Your task to perform on an android device: toggle priority inbox in the gmail app Image 0: 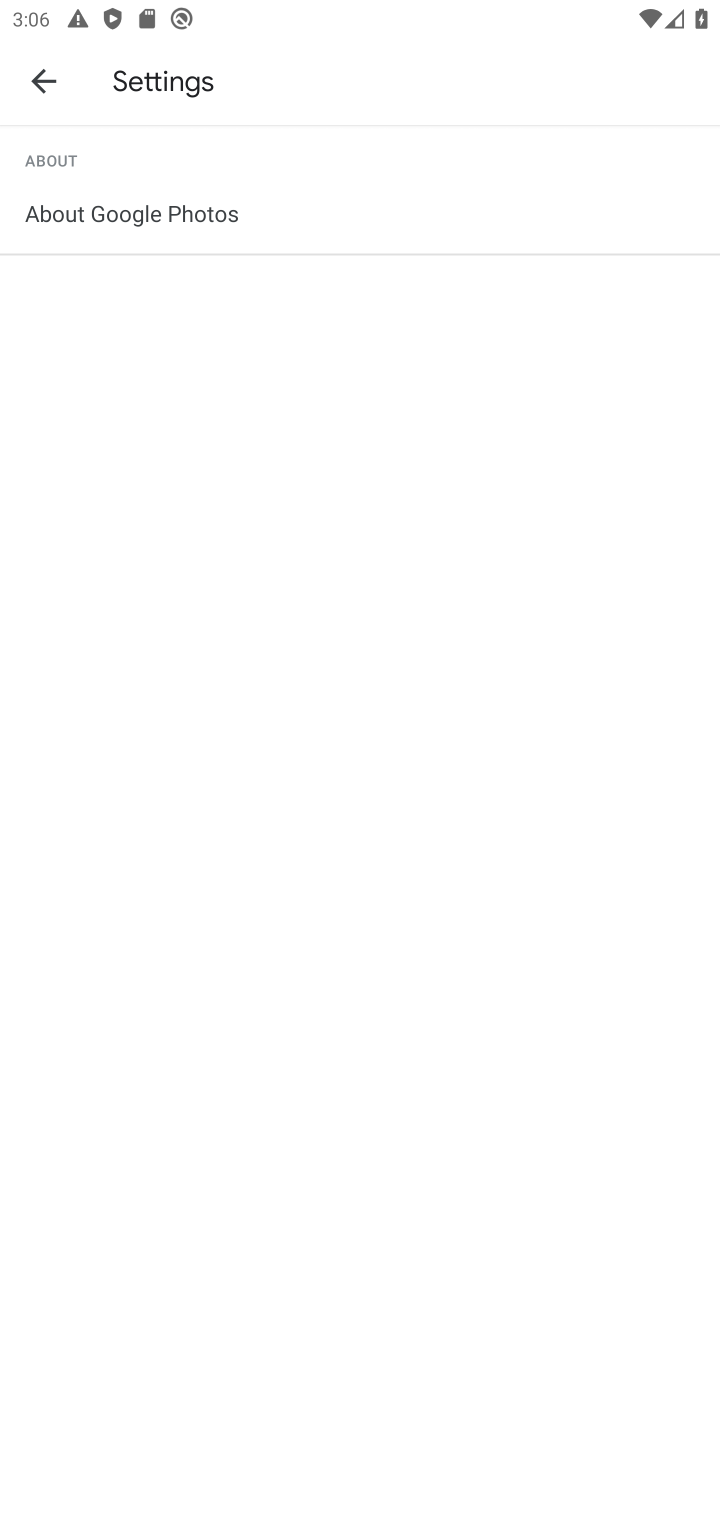
Step 0: press home button
Your task to perform on an android device: toggle priority inbox in the gmail app Image 1: 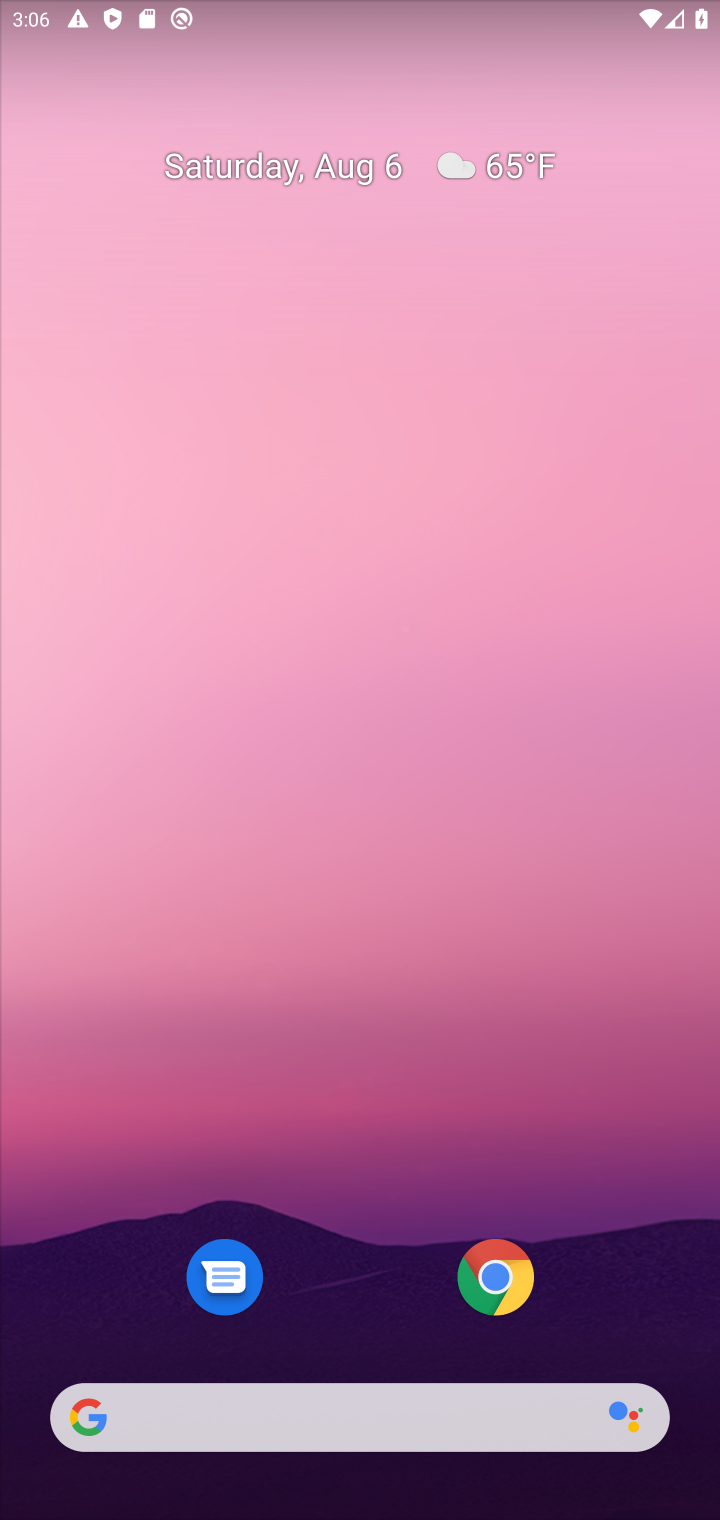
Step 1: drag from (323, 1057) to (369, 434)
Your task to perform on an android device: toggle priority inbox in the gmail app Image 2: 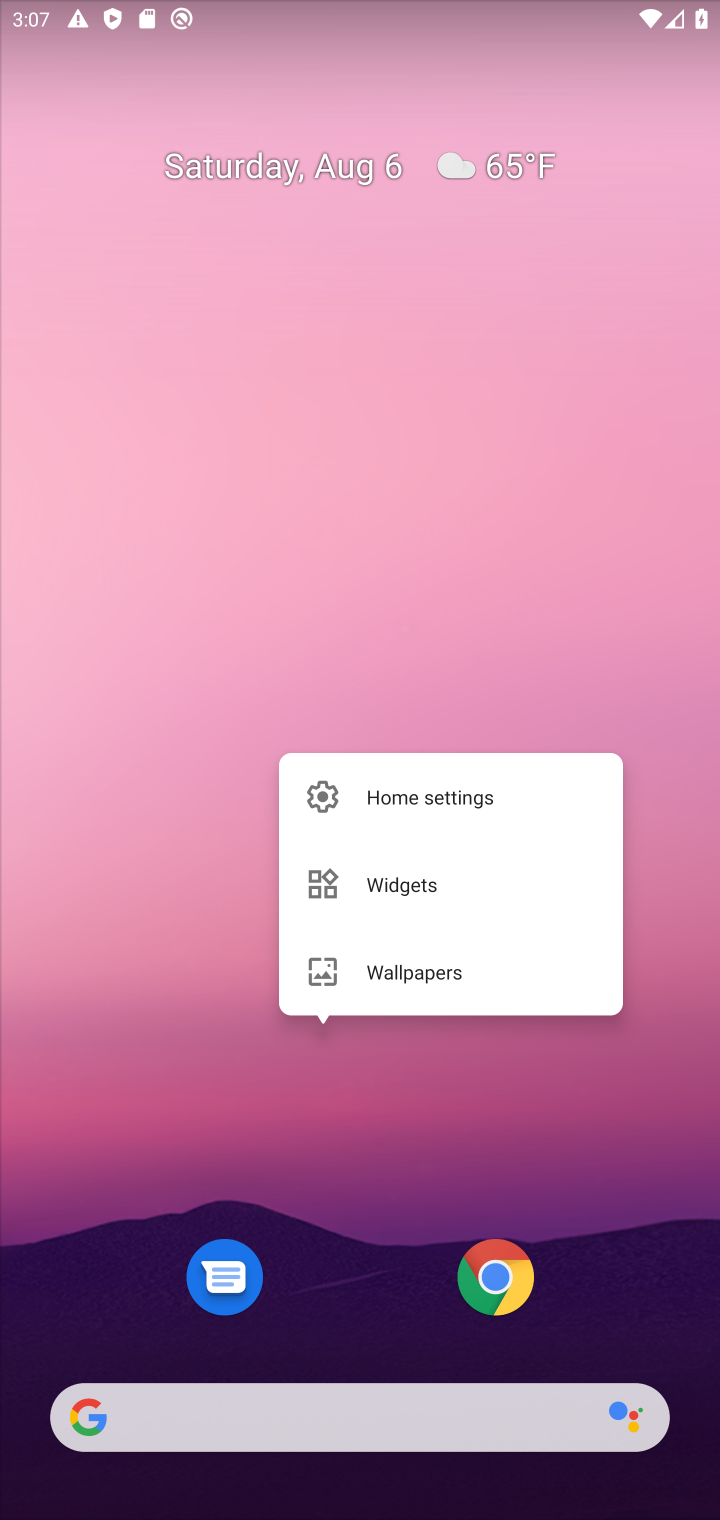
Step 2: click (689, 989)
Your task to perform on an android device: toggle priority inbox in the gmail app Image 3: 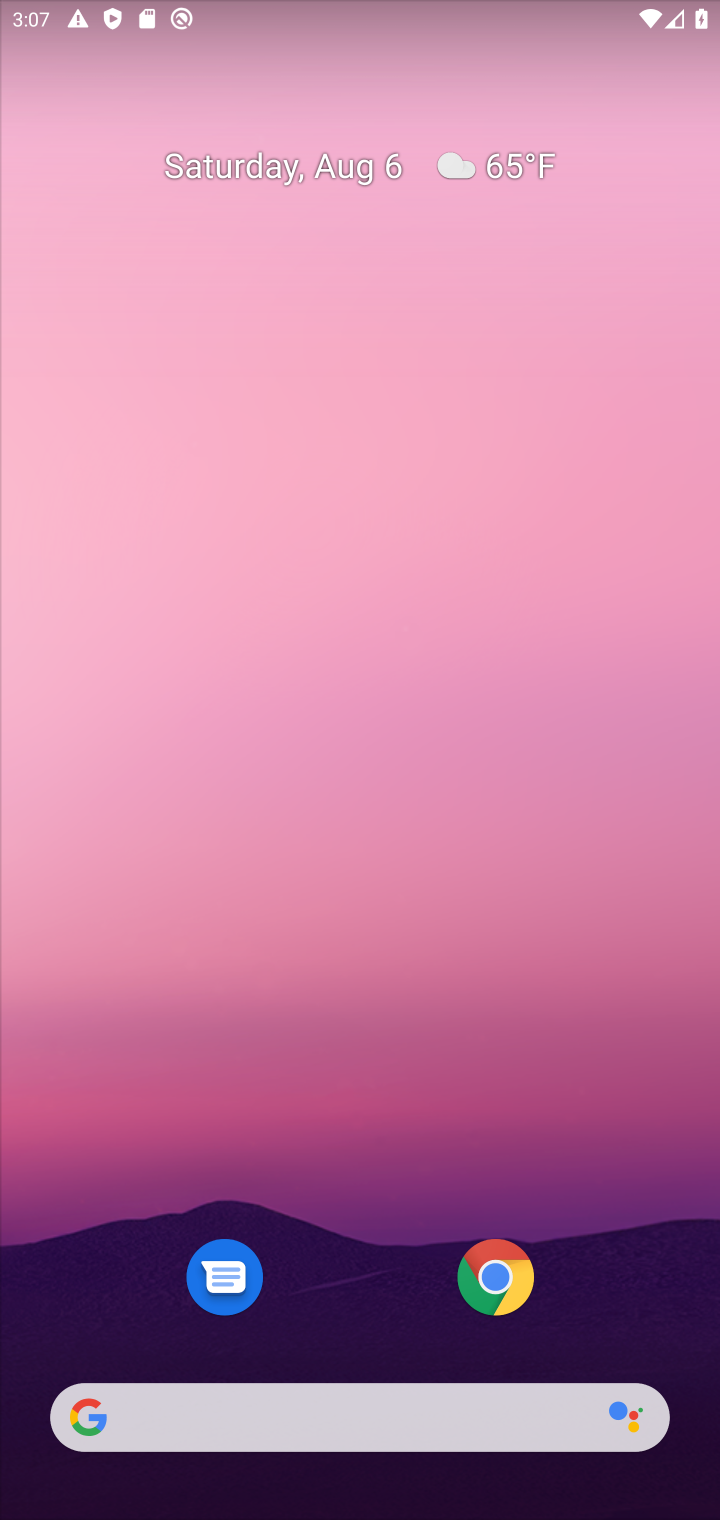
Step 3: drag from (346, 1408) to (489, 68)
Your task to perform on an android device: toggle priority inbox in the gmail app Image 4: 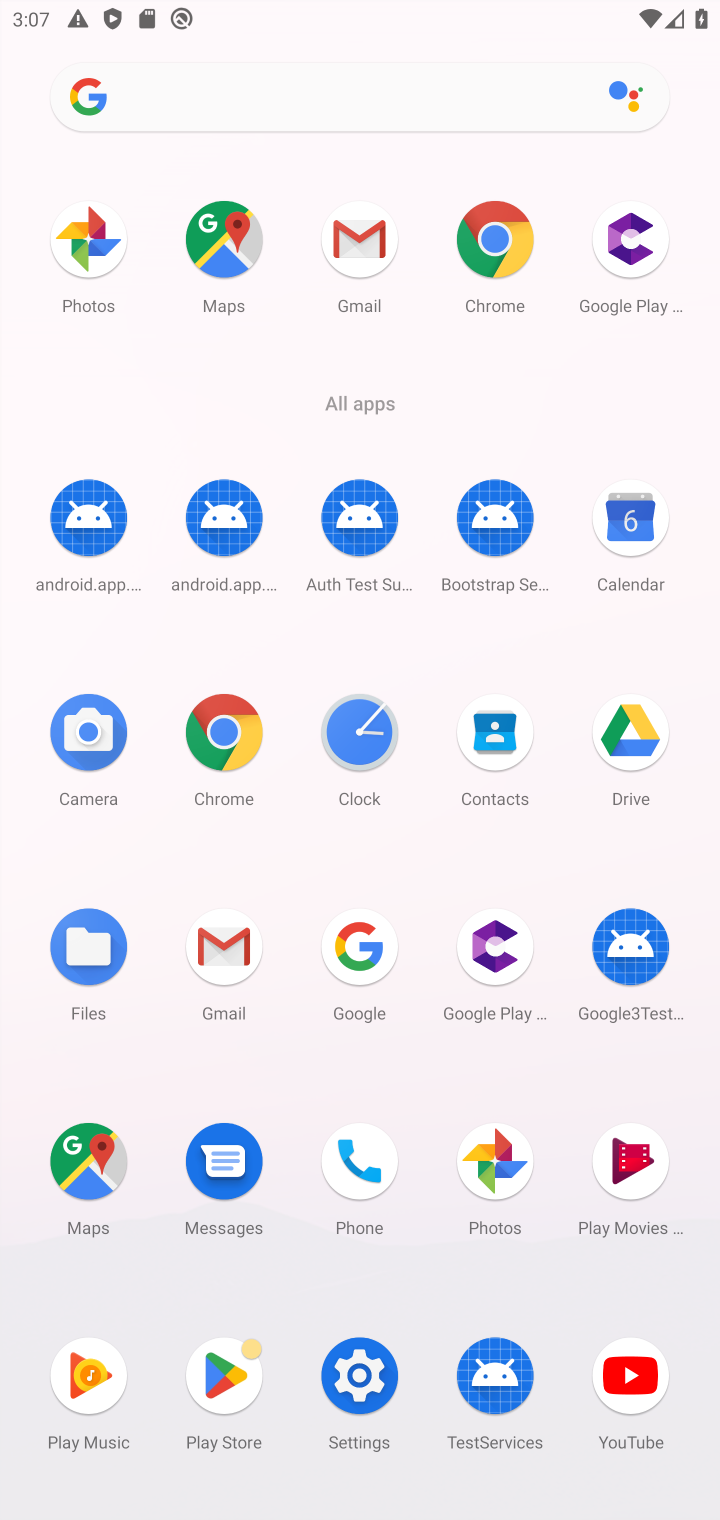
Step 4: click (215, 941)
Your task to perform on an android device: toggle priority inbox in the gmail app Image 5: 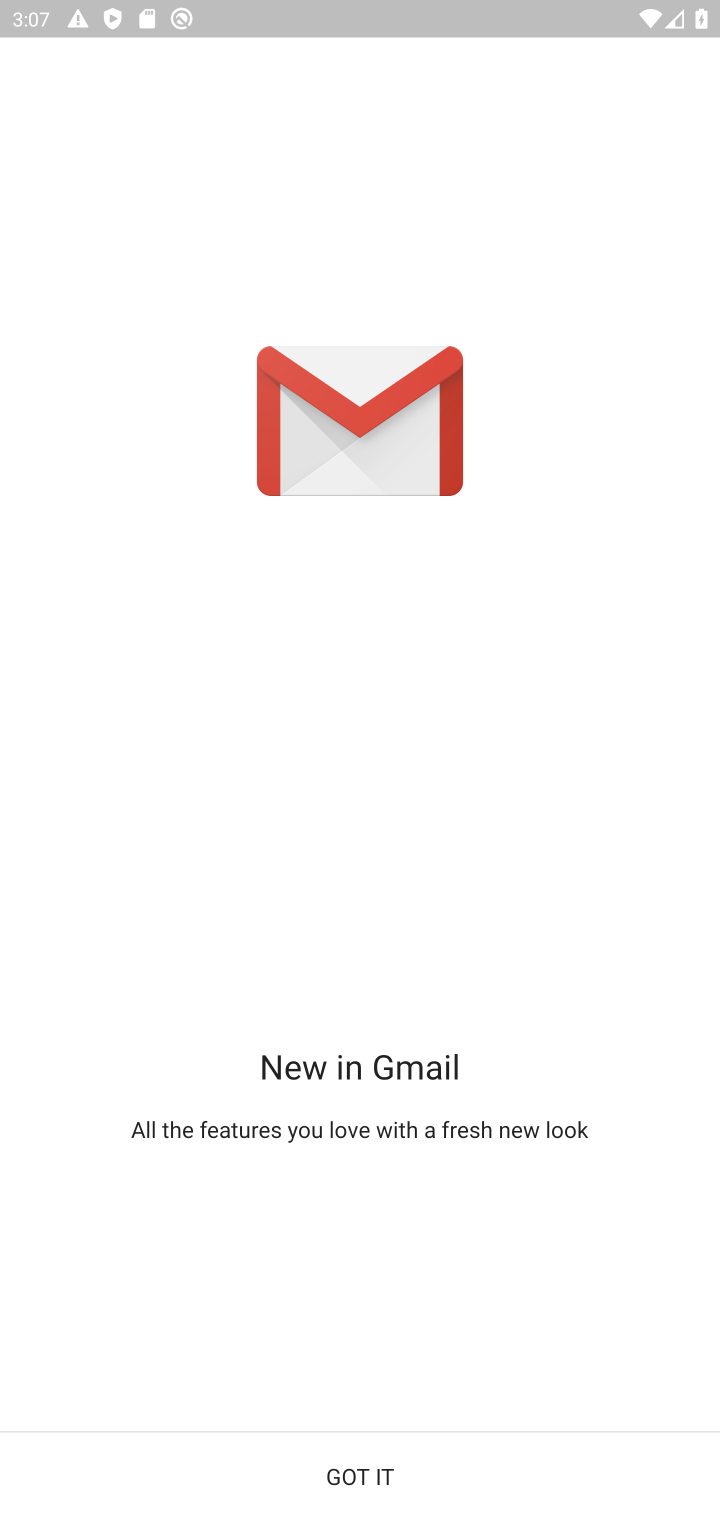
Step 5: click (284, 1452)
Your task to perform on an android device: toggle priority inbox in the gmail app Image 6: 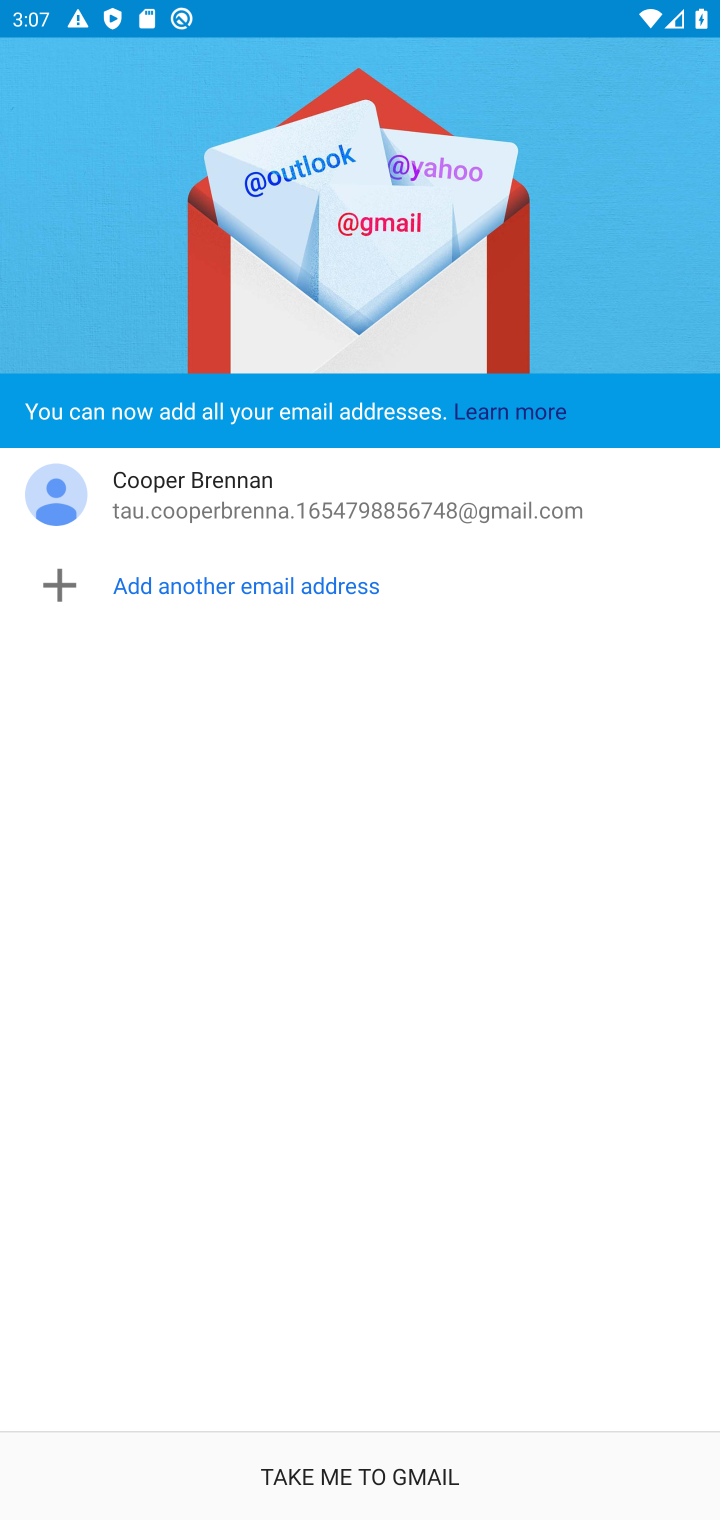
Step 6: click (284, 1452)
Your task to perform on an android device: toggle priority inbox in the gmail app Image 7: 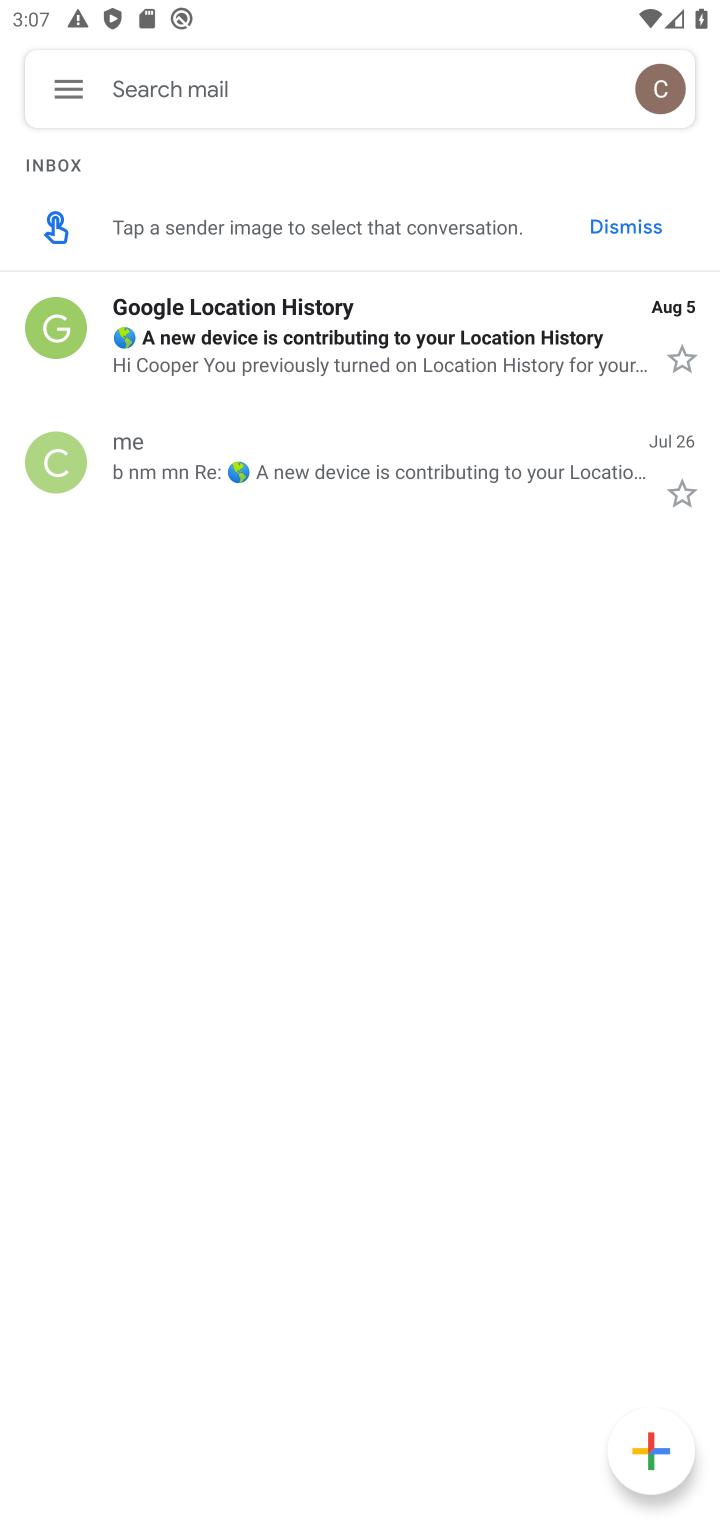
Step 7: click (64, 97)
Your task to perform on an android device: toggle priority inbox in the gmail app Image 8: 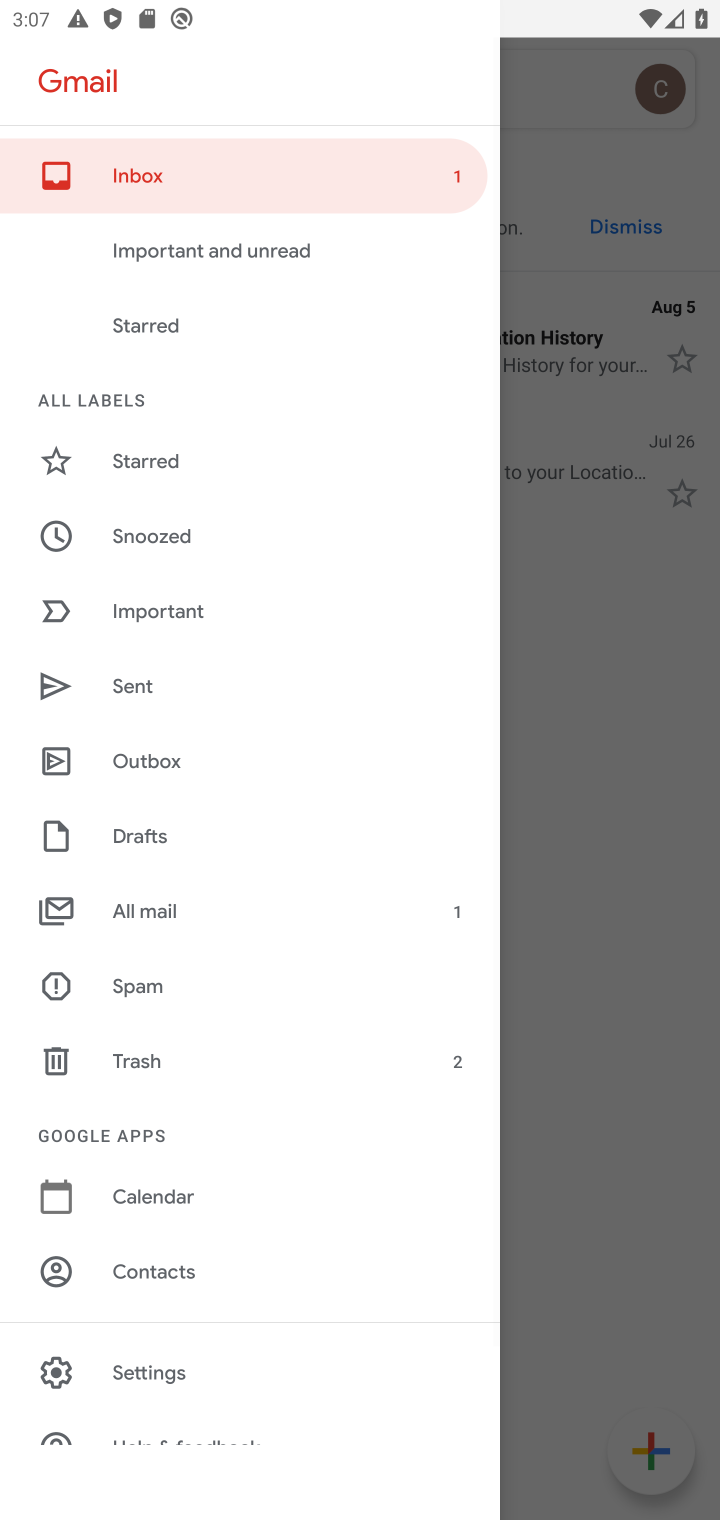
Step 8: click (244, 1365)
Your task to perform on an android device: toggle priority inbox in the gmail app Image 9: 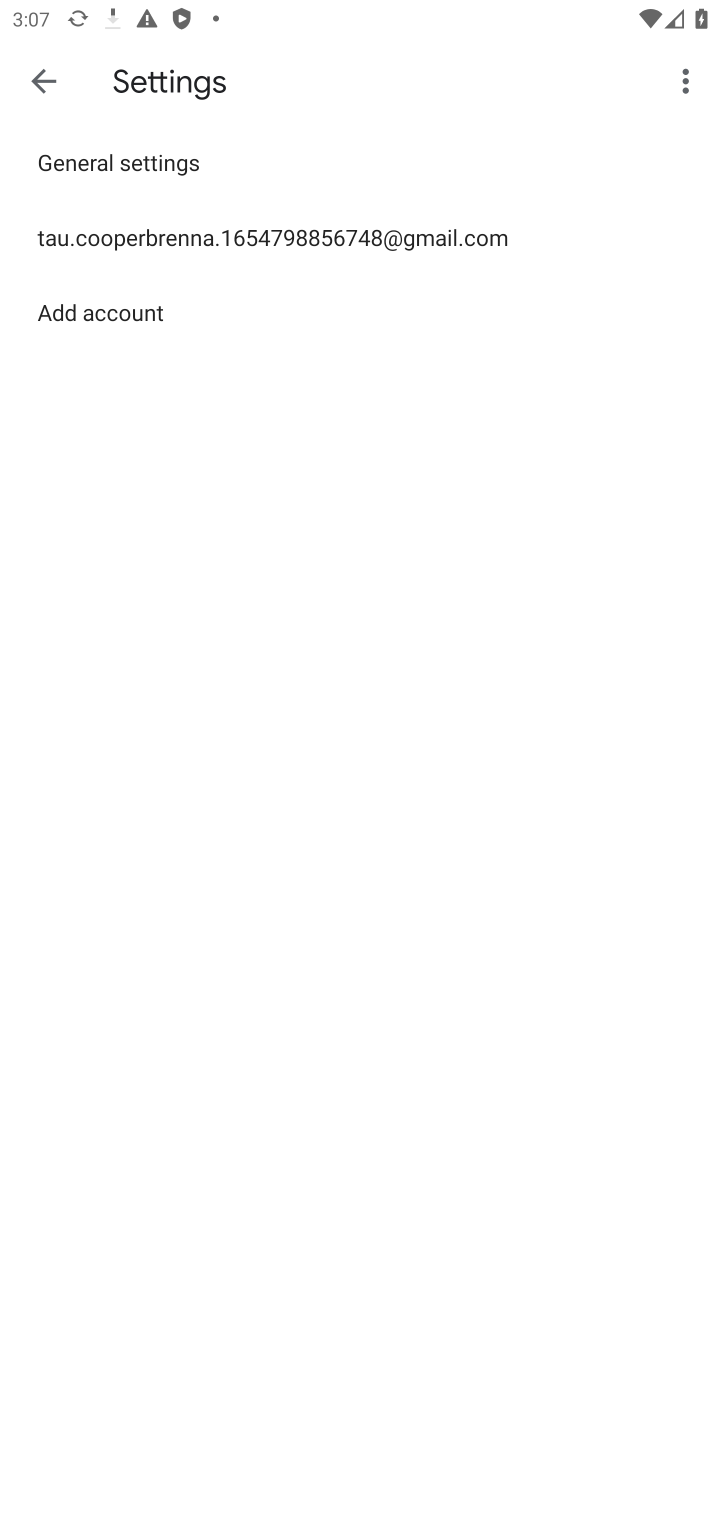
Step 9: click (244, 243)
Your task to perform on an android device: toggle priority inbox in the gmail app Image 10: 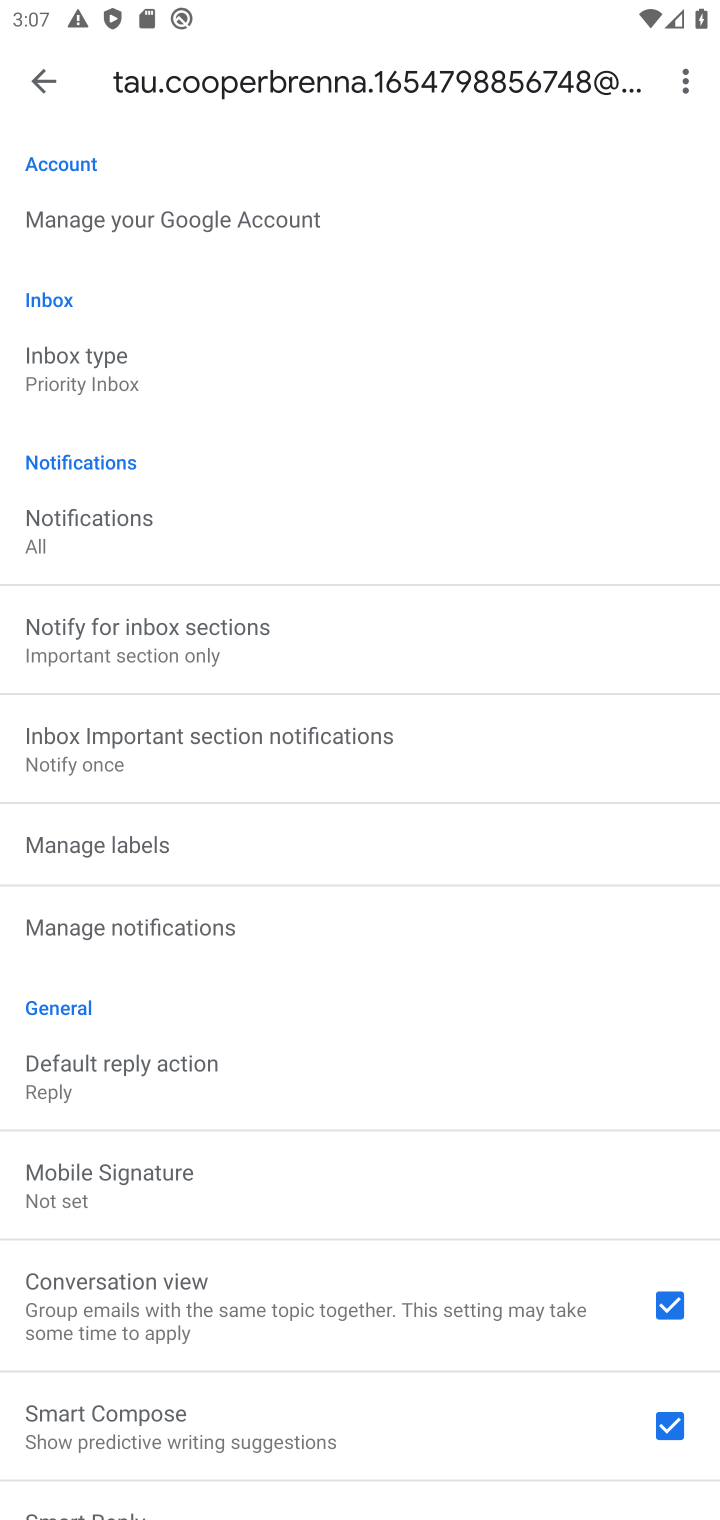
Step 10: click (112, 372)
Your task to perform on an android device: toggle priority inbox in the gmail app Image 11: 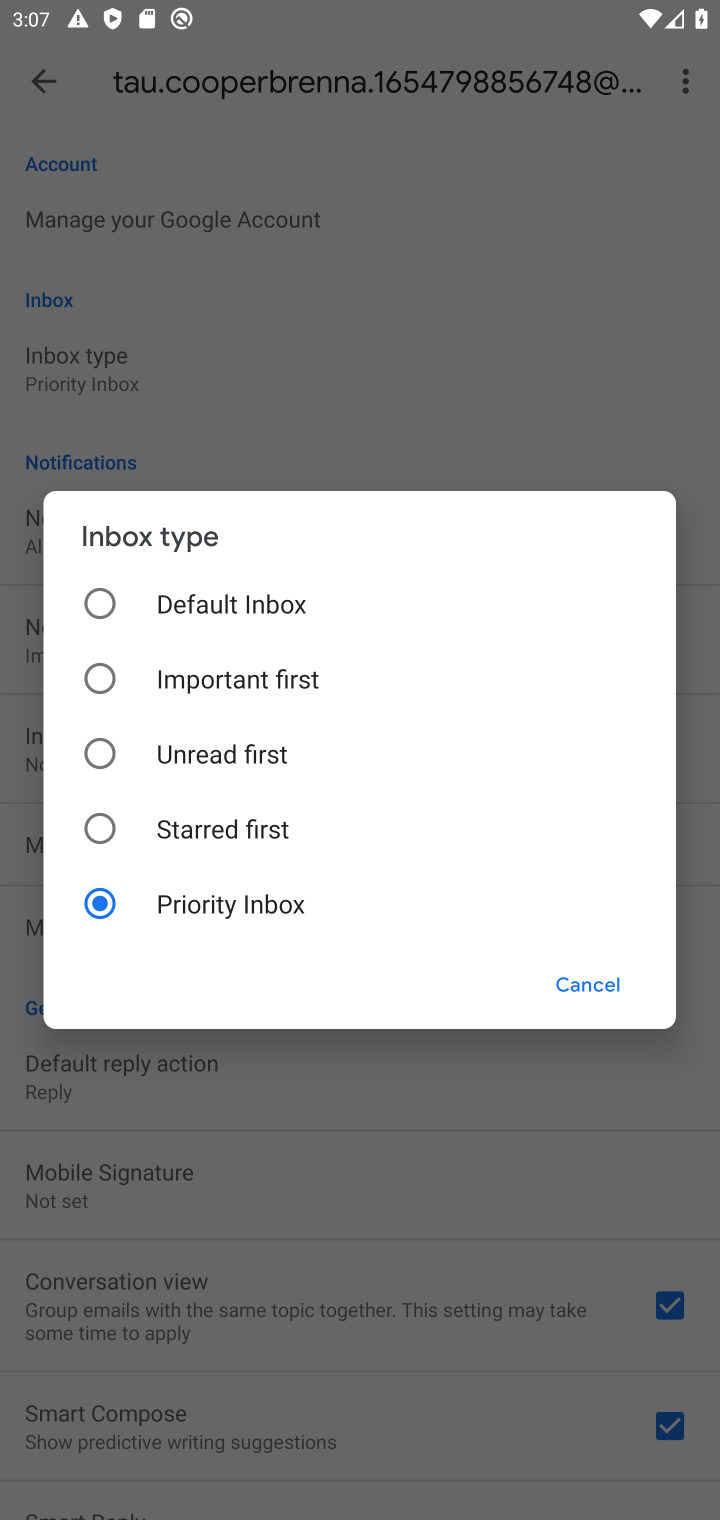
Step 11: click (103, 601)
Your task to perform on an android device: toggle priority inbox in the gmail app Image 12: 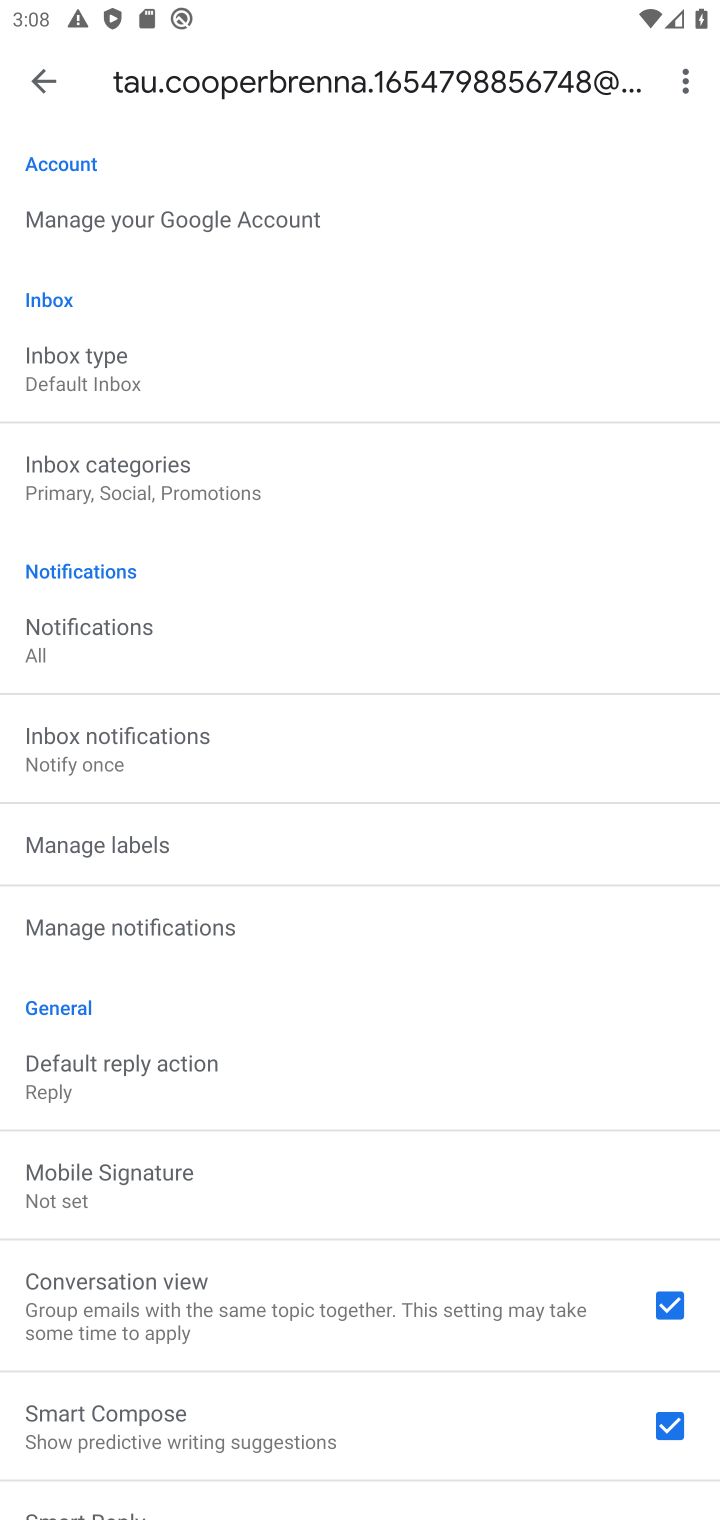
Step 12: task complete